Your task to perform on an android device: Go to internet settings Image 0: 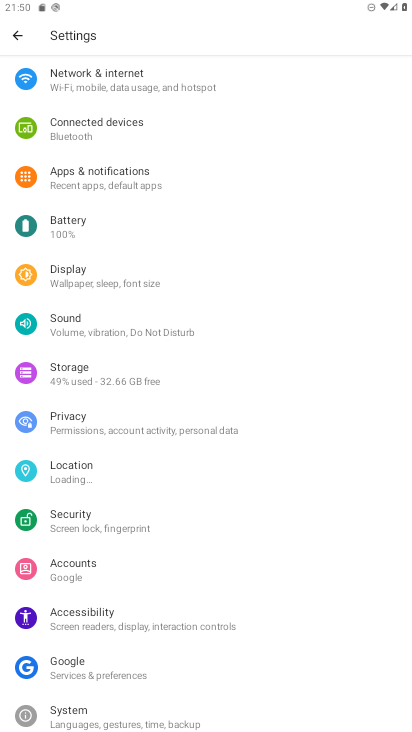
Step 0: click (79, 74)
Your task to perform on an android device: Go to internet settings Image 1: 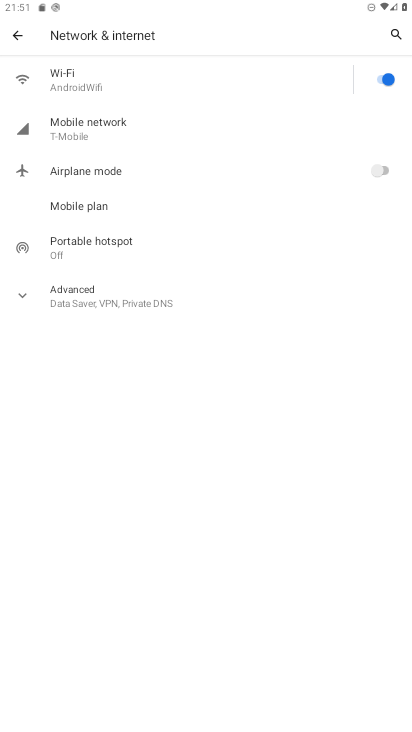
Step 1: task complete